Your task to perform on an android device: allow cookies in the chrome app Image 0: 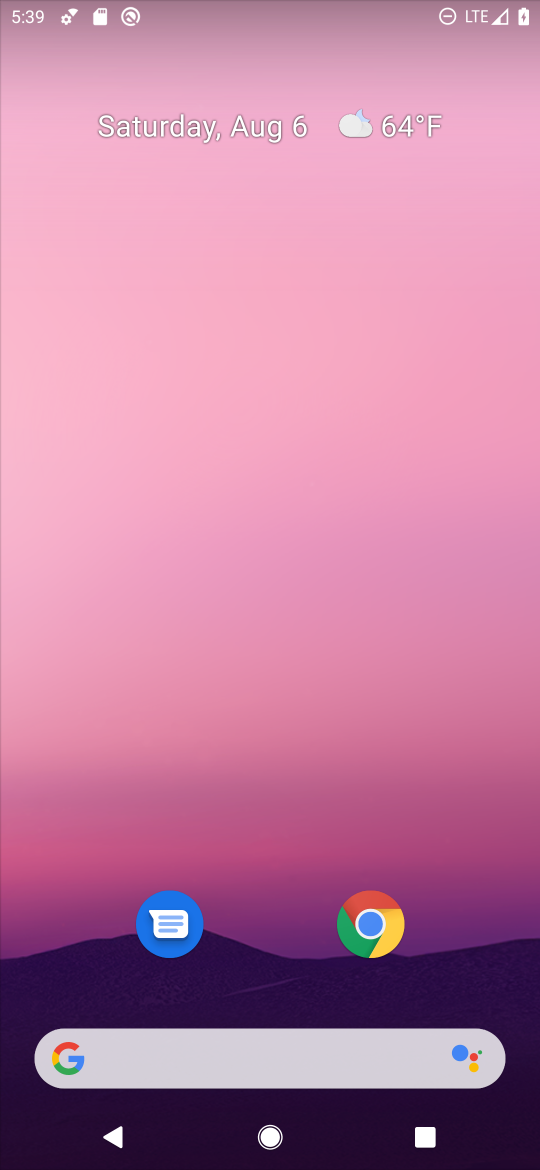
Step 0: press home button
Your task to perform on an android device: allow cookies in the chrome app Image 1: 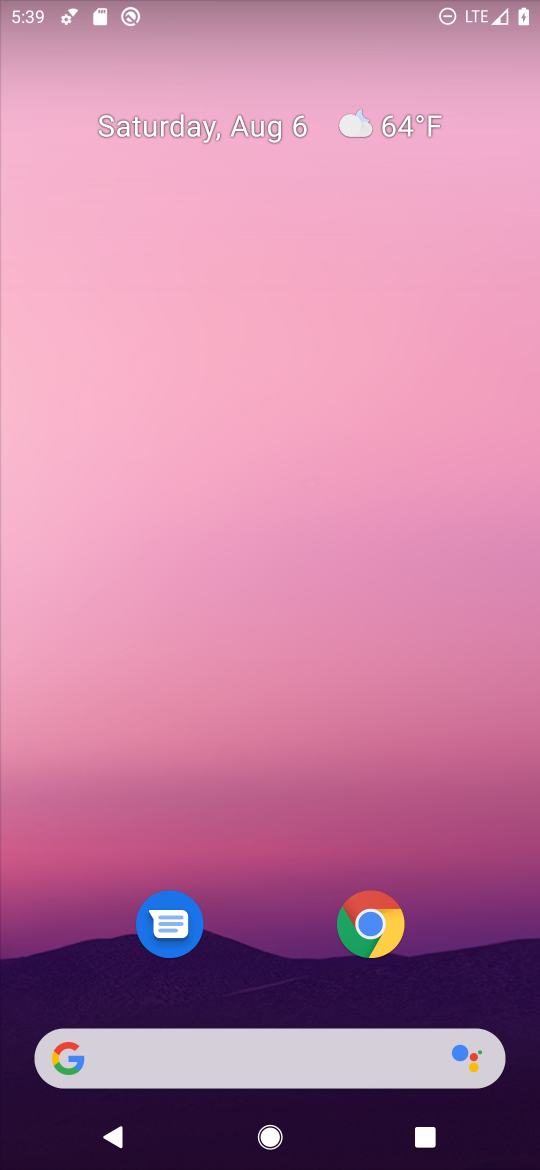
Step 1: click (365, 918)
Your task to perform on an android device: allow cookies in the chrome app Image 2: 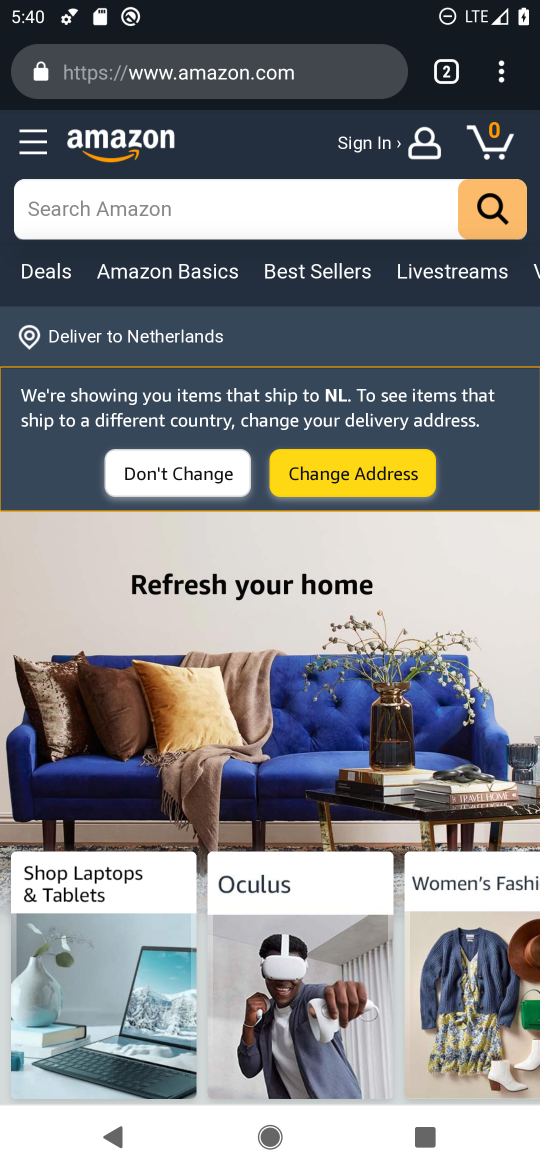
Step 2: click (504, 73)
Your task to perform on an android device: allow cookies in the chrome app Image 3: 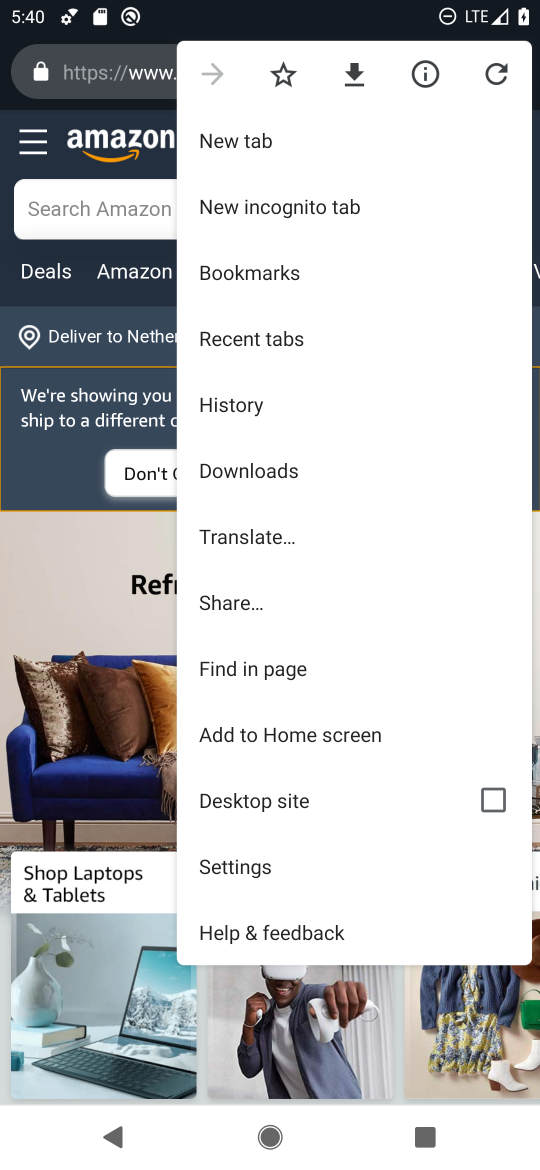
Step 3: click (251, 857)
Your task to perform on an android device: allow cookies in the chrome app Image 4: 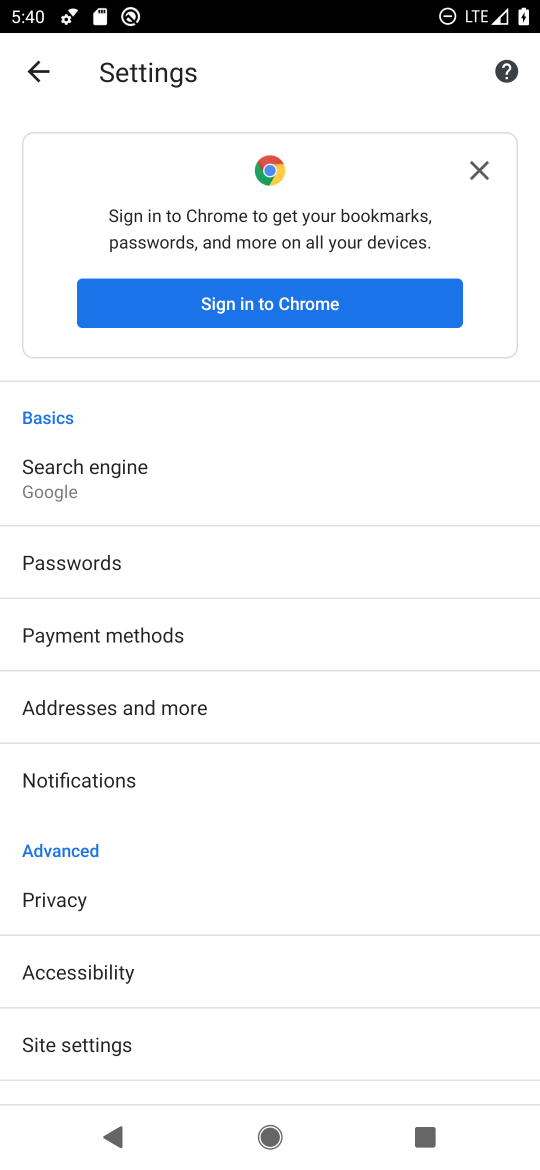
Step 4: click (97, 1035)
Your task to perform on an android device: allow cookies in the chrome app Image 5: 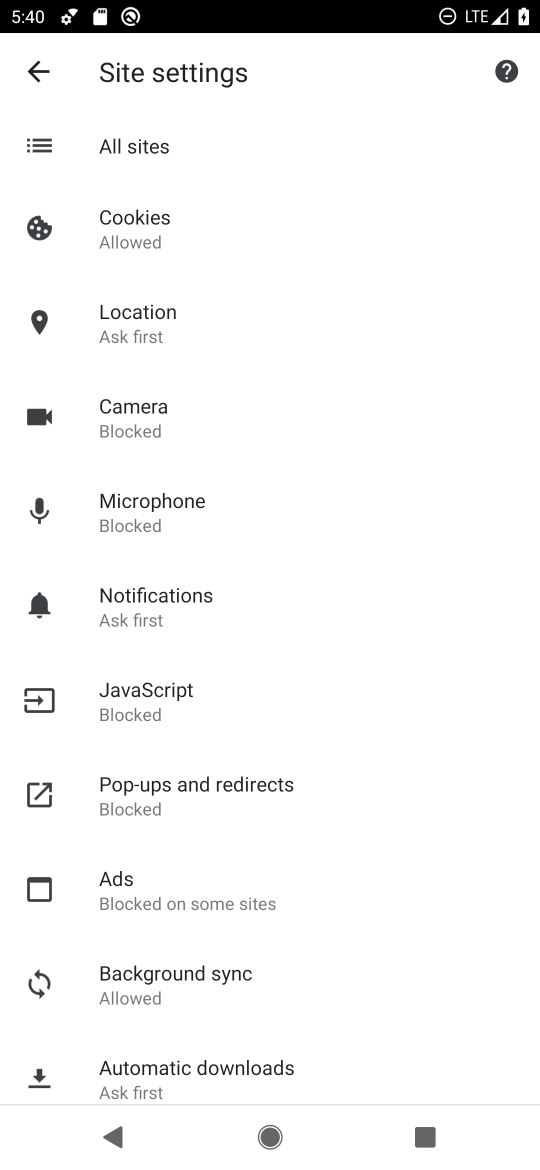
Step 5: click (120, 219)
Your task to perform on an android device: allow cookies in the chrome app Image 6: 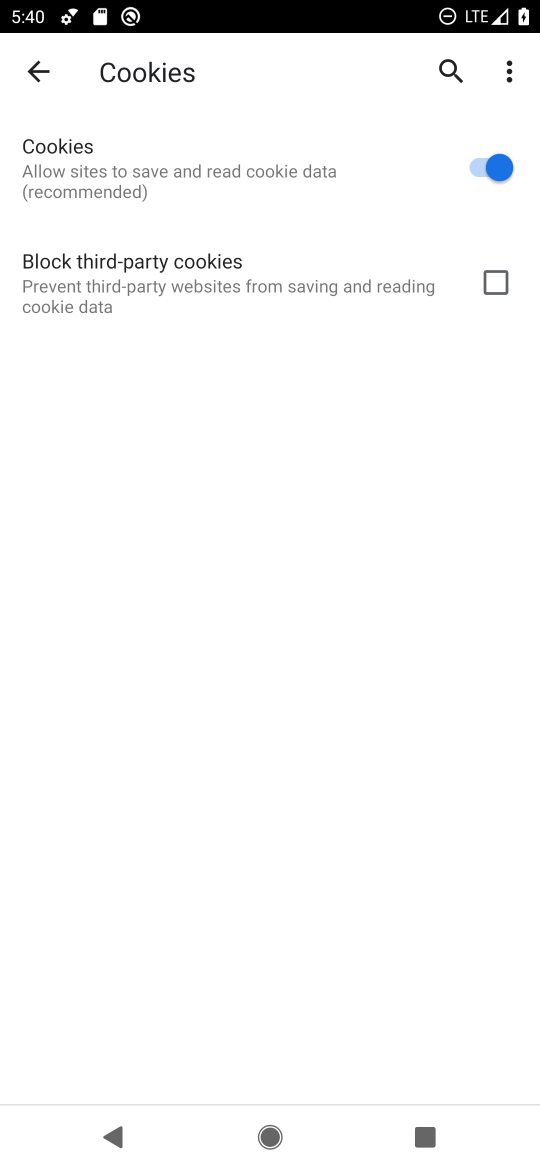
Step 6: task complete